Your task to perform on an android device: turn off improve location accuracy Image 0: 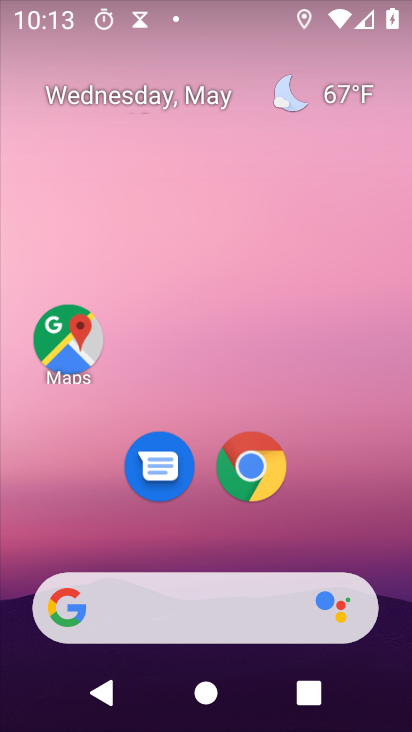
Step 0: drag from (296, 532) to (249, 152)
Your task to perform on an android device: turn off improve location accuracy Image 1: 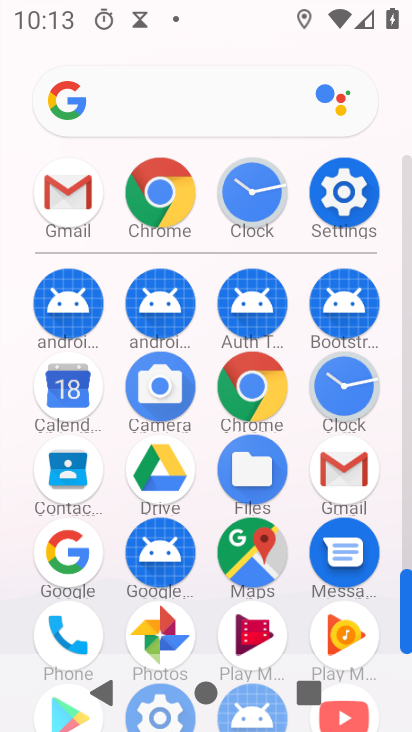
Step 1: click (338, 193)
Your task to perform on an android device: turn off improve location accuracy Image 2: 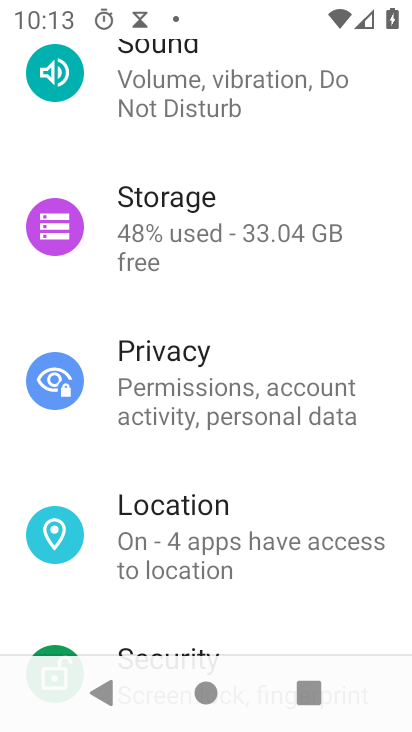
Step 2: press home button
Your task to perform on an android device: turn off improve location accuracy Image 3: 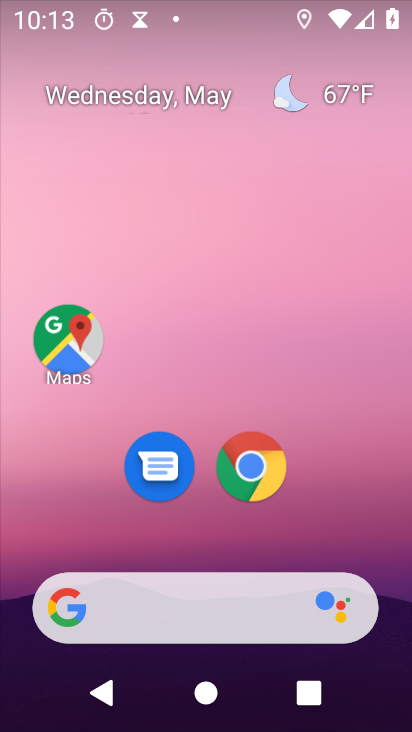
Step 3: drag from (245, 536) to (246, 59)
Your task to perform on an android device: turn off improve location accuracy Image 4: 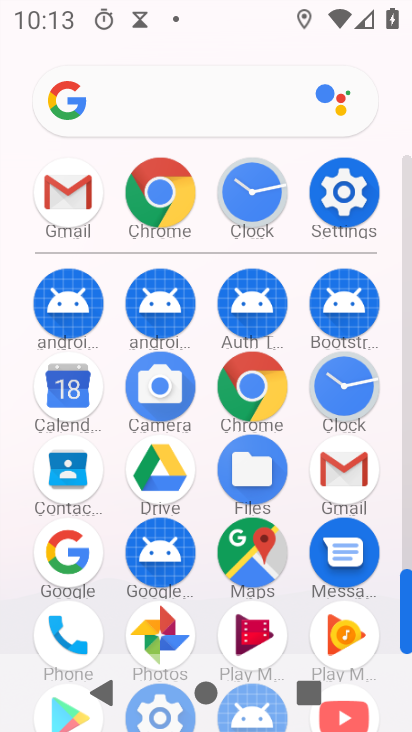
Step 4: click (346, 193)
Your task to perform on an android device: turn off improve location accuracy Image 5: 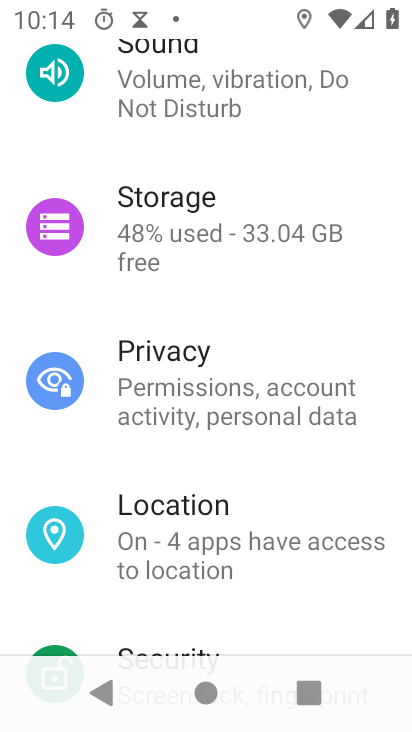
Step 5: click (211, 537)
Your task to perform on an android device: turn off improve location accuracy Image 6: 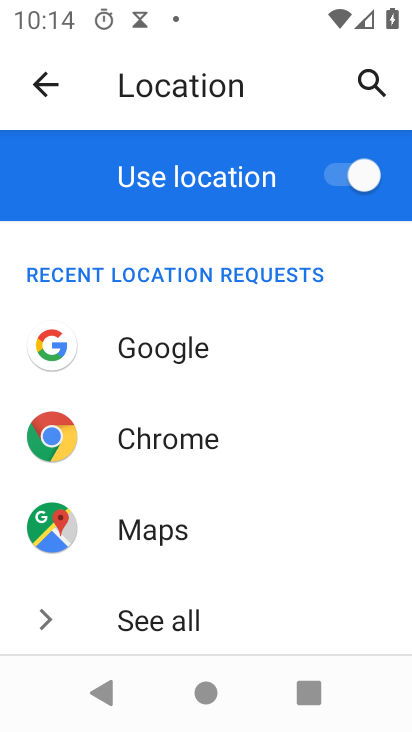
Step 6: drag from (222, 572) to (195, 281)
Your task to perform on an android device: turn off improve location accuracy Image 7: 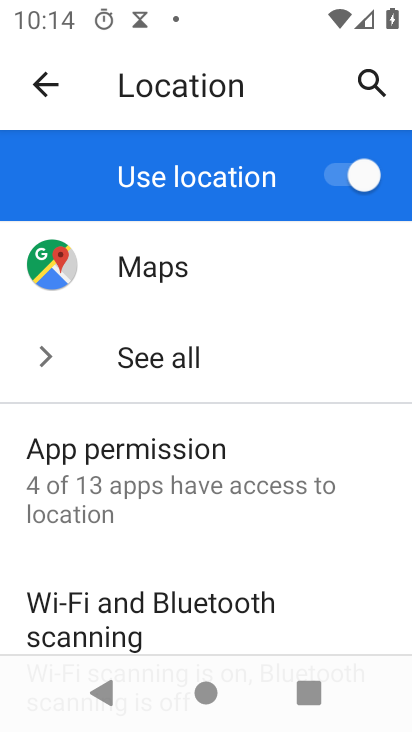
Step 7: drag from (176, 568) to (187, 285)
Your task to perform on an android device: turn off improve location accuracy Image 8: 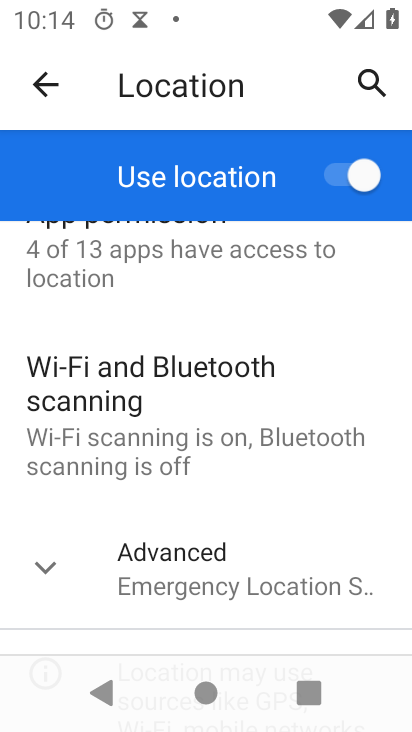
Step 8: drag from (168, 584) to (188, 330)
Your task to perform on an android device: turn off improve location accuracy Image 9: 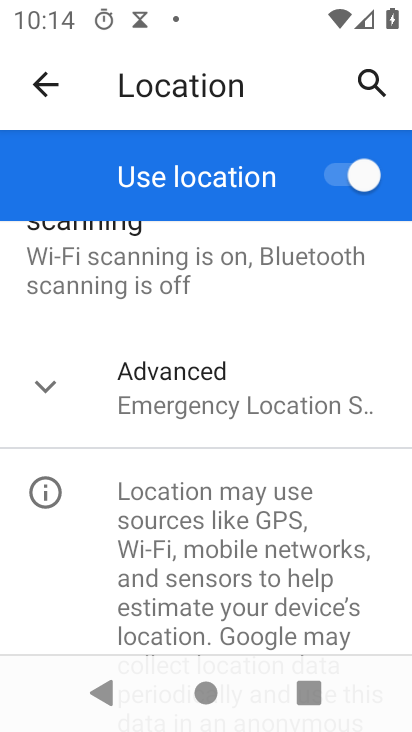
Step 9: drag from (179, 589) to (224, 324)
Your task to perform on an android device: turn off improve location accuracy Image 10: 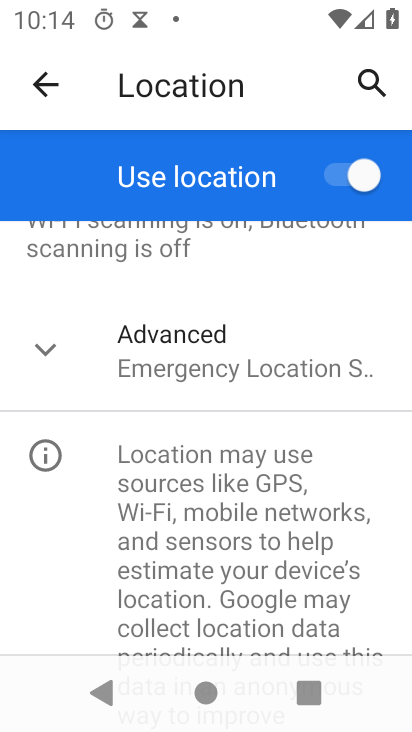
Step 10: click (187, 342)
Your task to perform on an android device: turn off improve location accuracy Image 11: 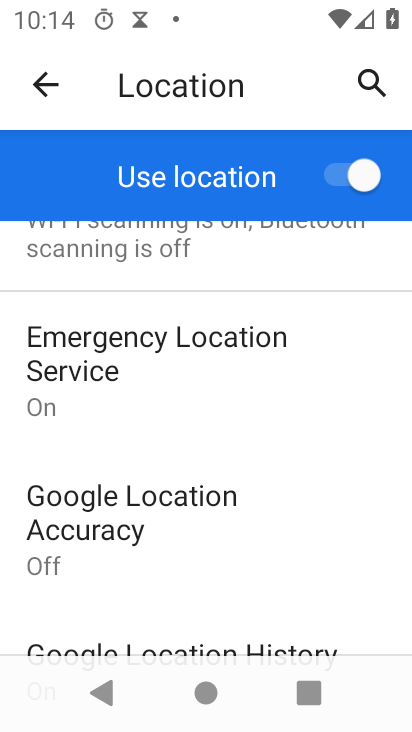
Step 11: task complete